Your task to perform on an android device: Go to wifi settings Image 0: 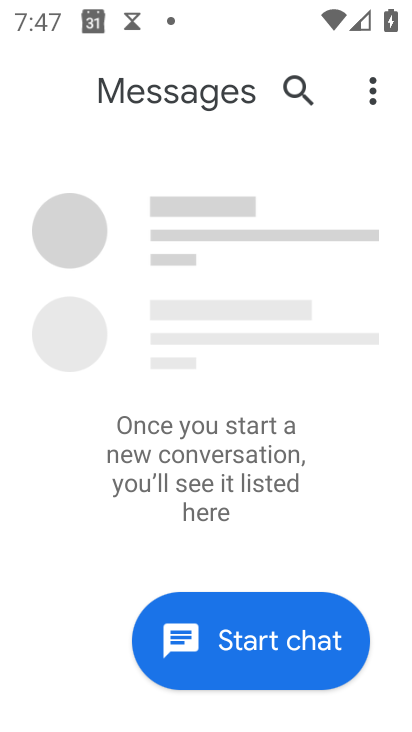
Step 0: press home button
Your task to perform on an android device: Go to wifi settings Image 1: 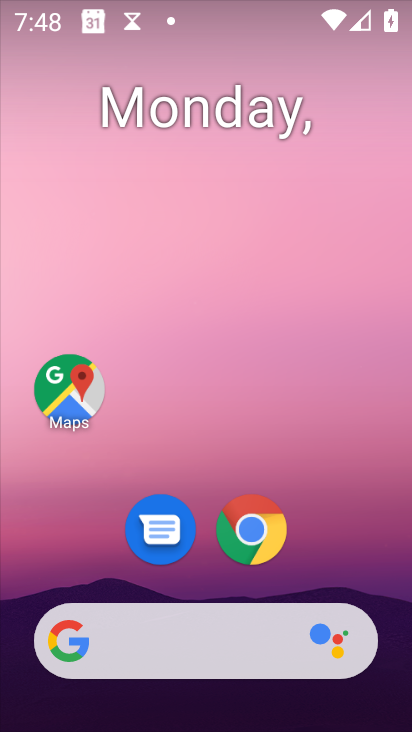
Step 1: drag from (153, 81) to (95, 433)
Your task to perform on an android device: Go to wifi settings Image 2: 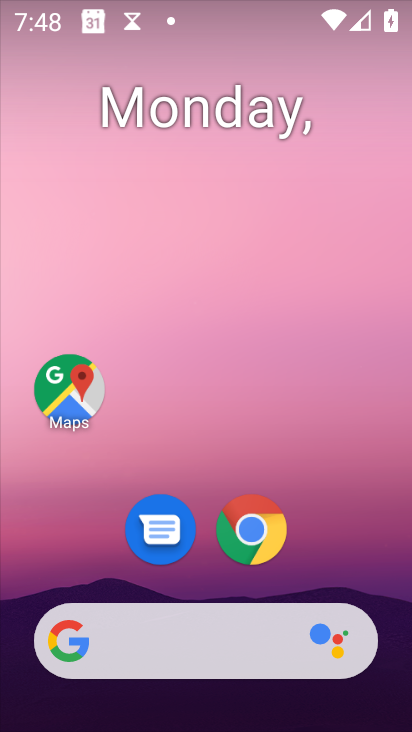
Step 2: drag from (275, 8) to (239, 482)
Your task to perform on an android device: Go to wifi settings Image 3: 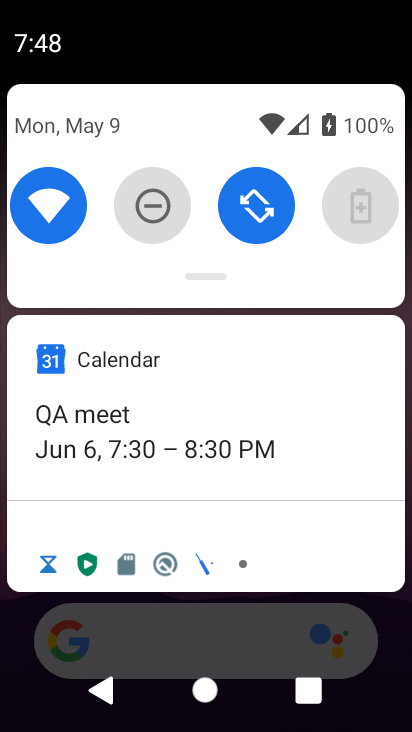
Step 3: click (72, 218)
Your task to perform on an android device: Go to wifi settings Image 4: 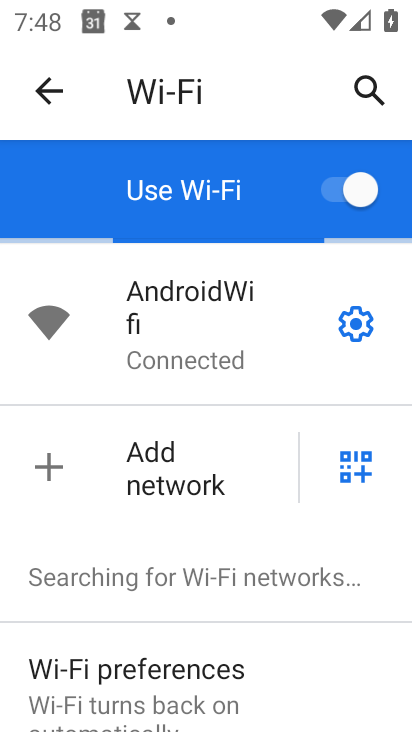
Step 4: click (358, 323)
Your task to perform on an android device: Go to wifi settings Image 5: 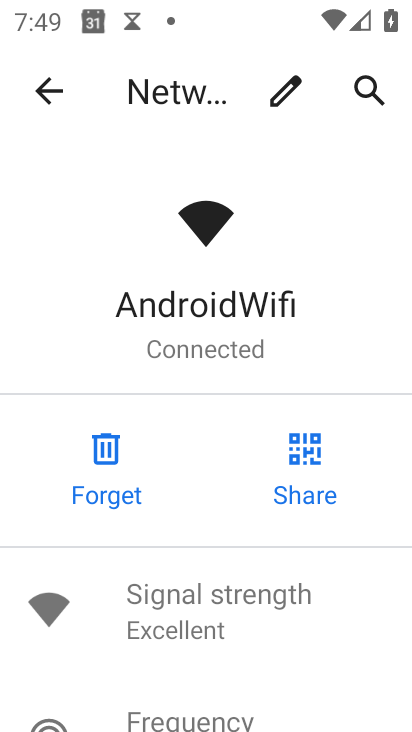
Step 5: task complete